Your task to perform on an android device: What's the news in the Philippines? Image 0: 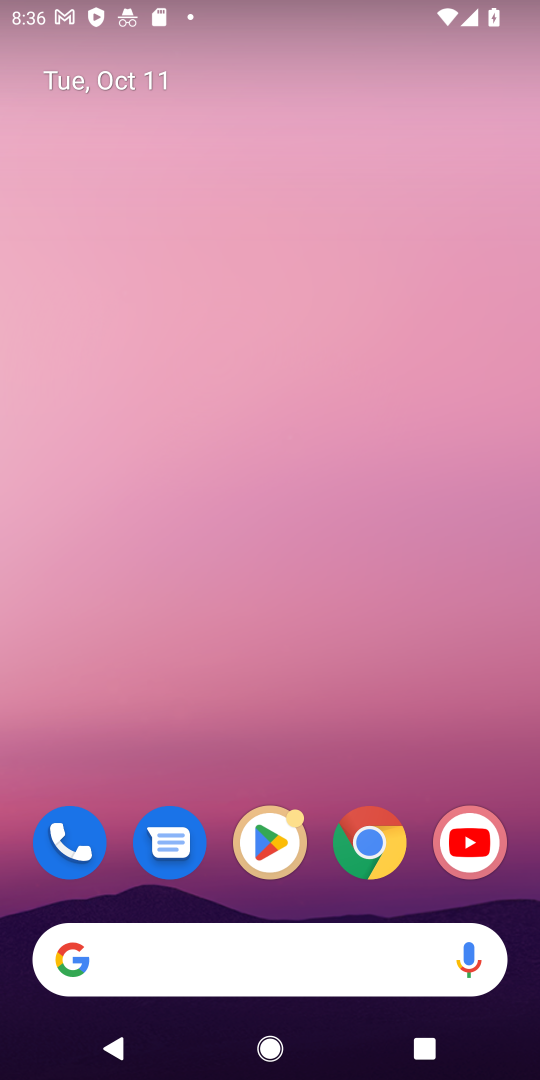
Step 0: click (254, 948)
Your task to perform on an android device: What's the news in the Philippines? Image 1: 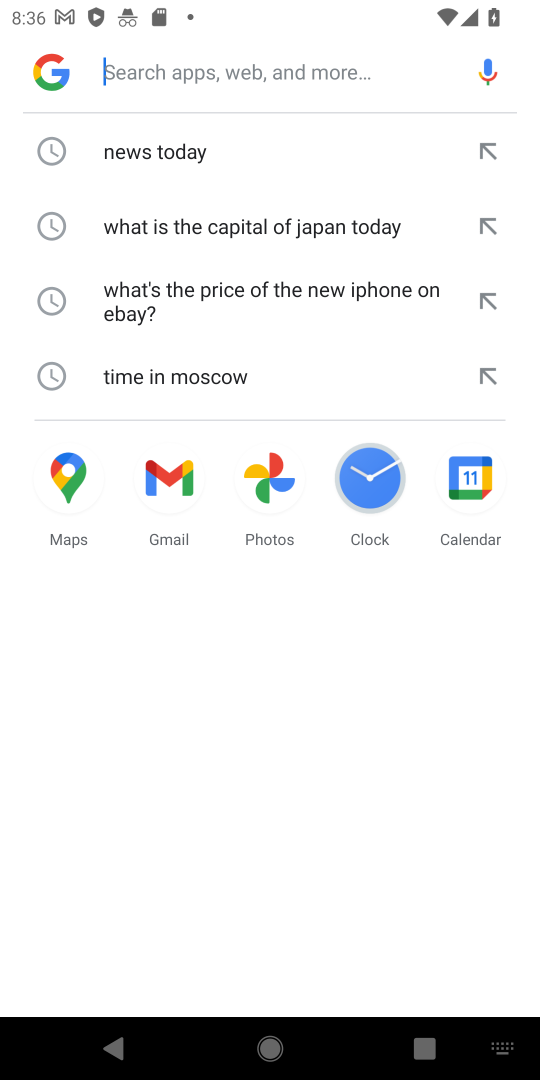
Step 1: type "What's the news in the Philippines?"
Your task to perform on an android device: What's the news in the Philippines? Image 2: 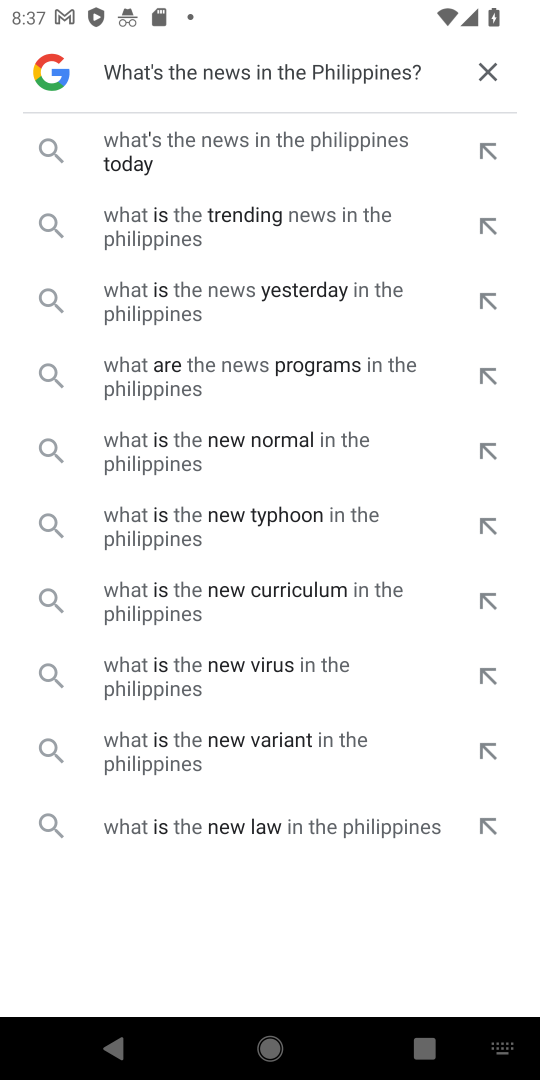
Step 2: click (276, 142)
Your task to perform on an android device: What's the news in the Philippines? Image 3: 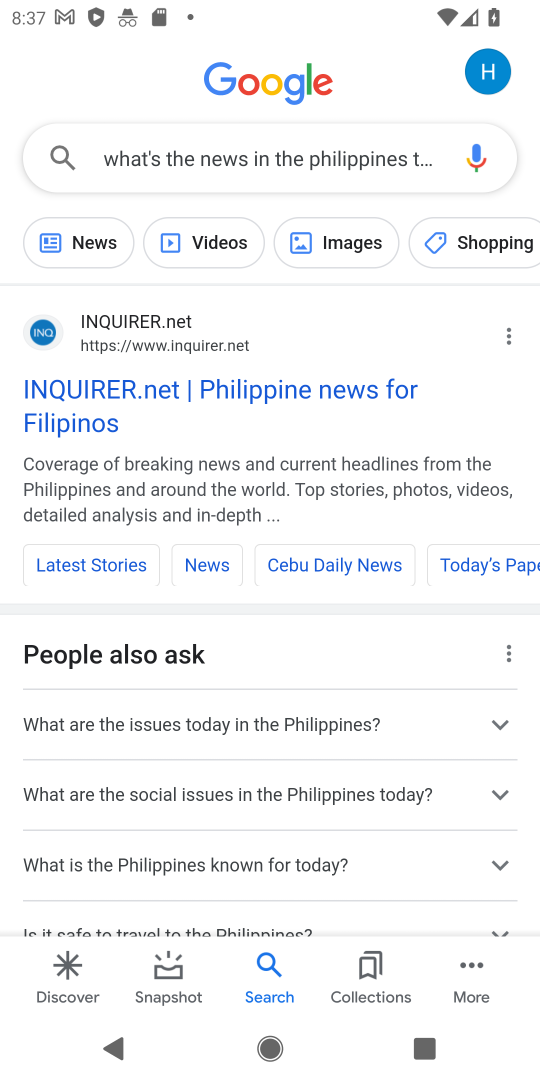
Step 3: task complete